Your task to perform on an android device: Search for usb-b on costco, select the first entry, and add it to the cart. Image 0: 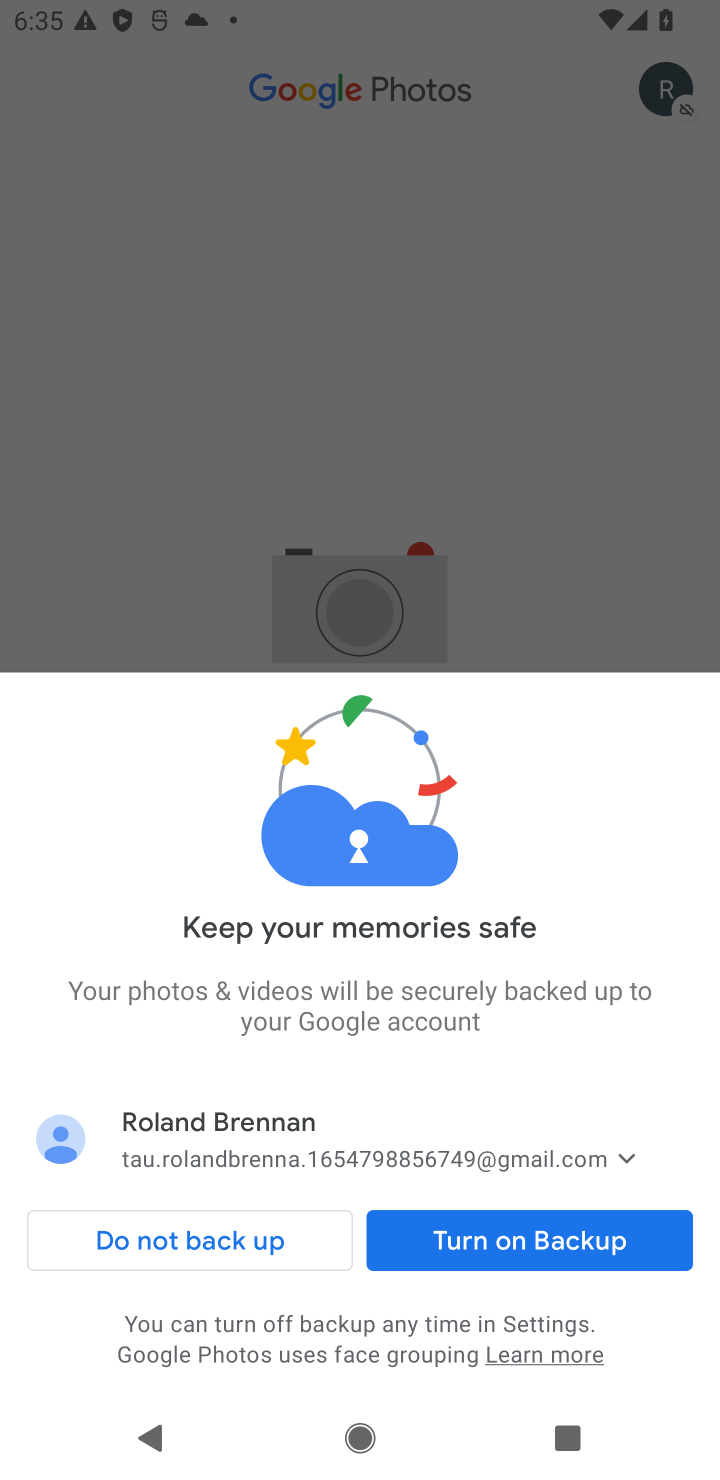
Step 0: press home button
Your task to perform on an android device: Search for usb-b on costco, select the first entry, and add it to the cart. Image 1: 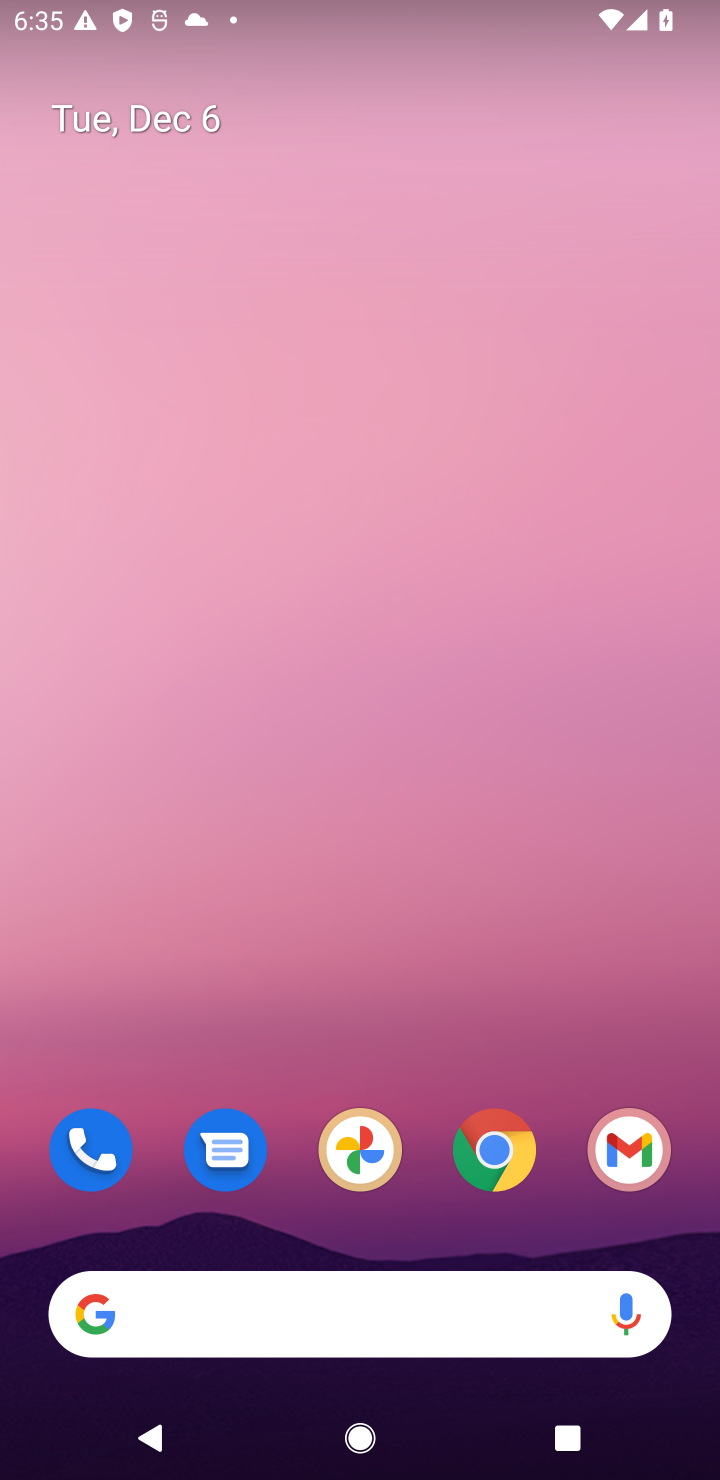
Step 1: click (504, 1164)
Your task to perform on an android device: Search for usb-b on costco, select the first entry, and add it to the cart. Image 2: 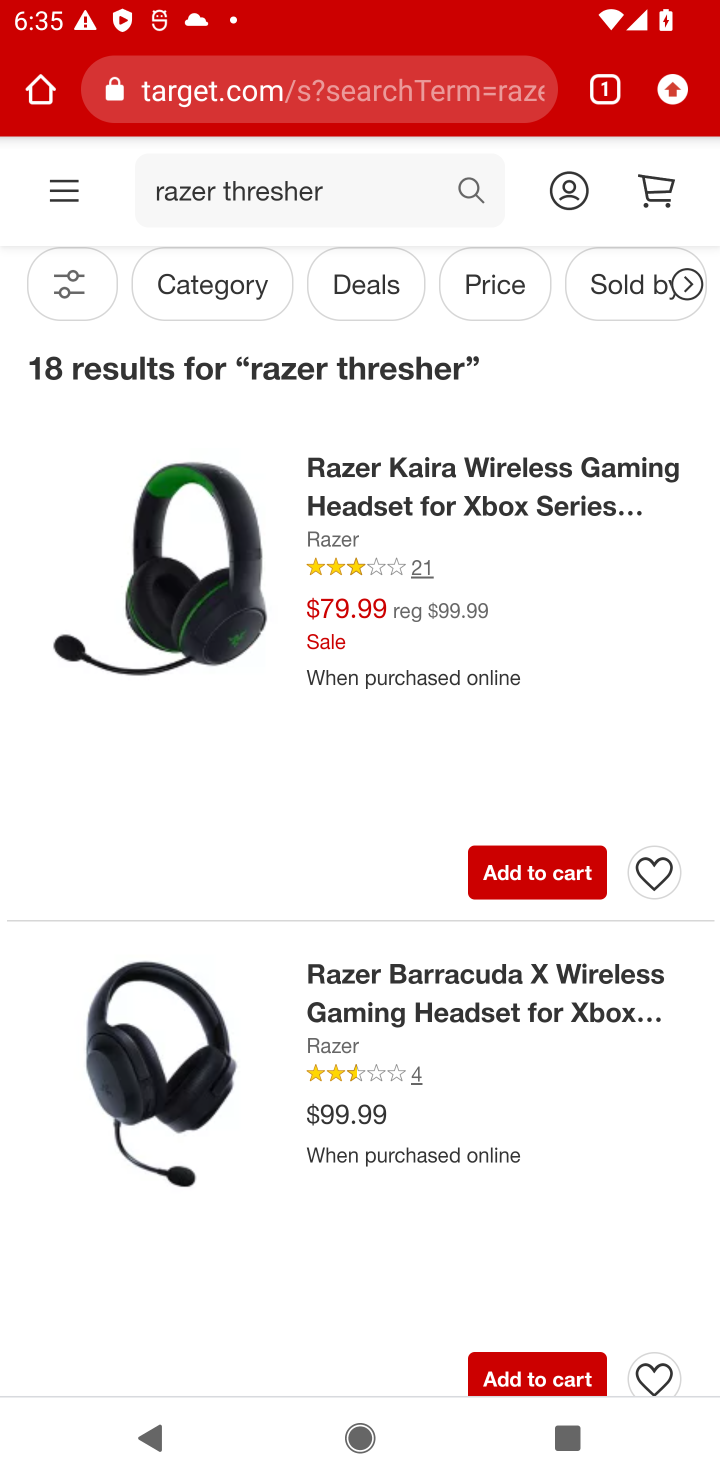
Step 2: click (281, 101)
Your task to perform on an android device: Search for usb-b on costco, select the first entry, and add it to the cart. Image 3: 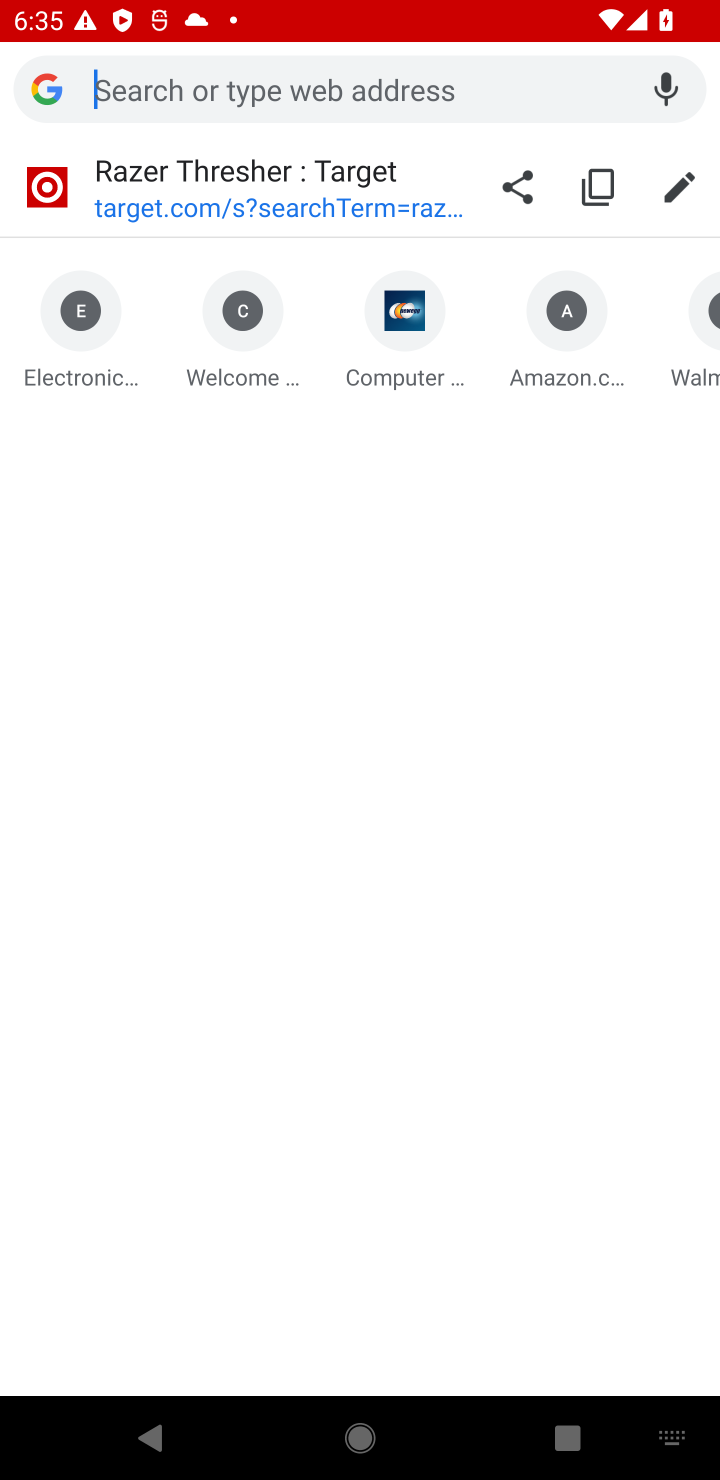
Step 3: type "costco.com"
Your task to perform on an android device: Search for usb-b on costco, select the first entry, and add it to the cart. Image 4: 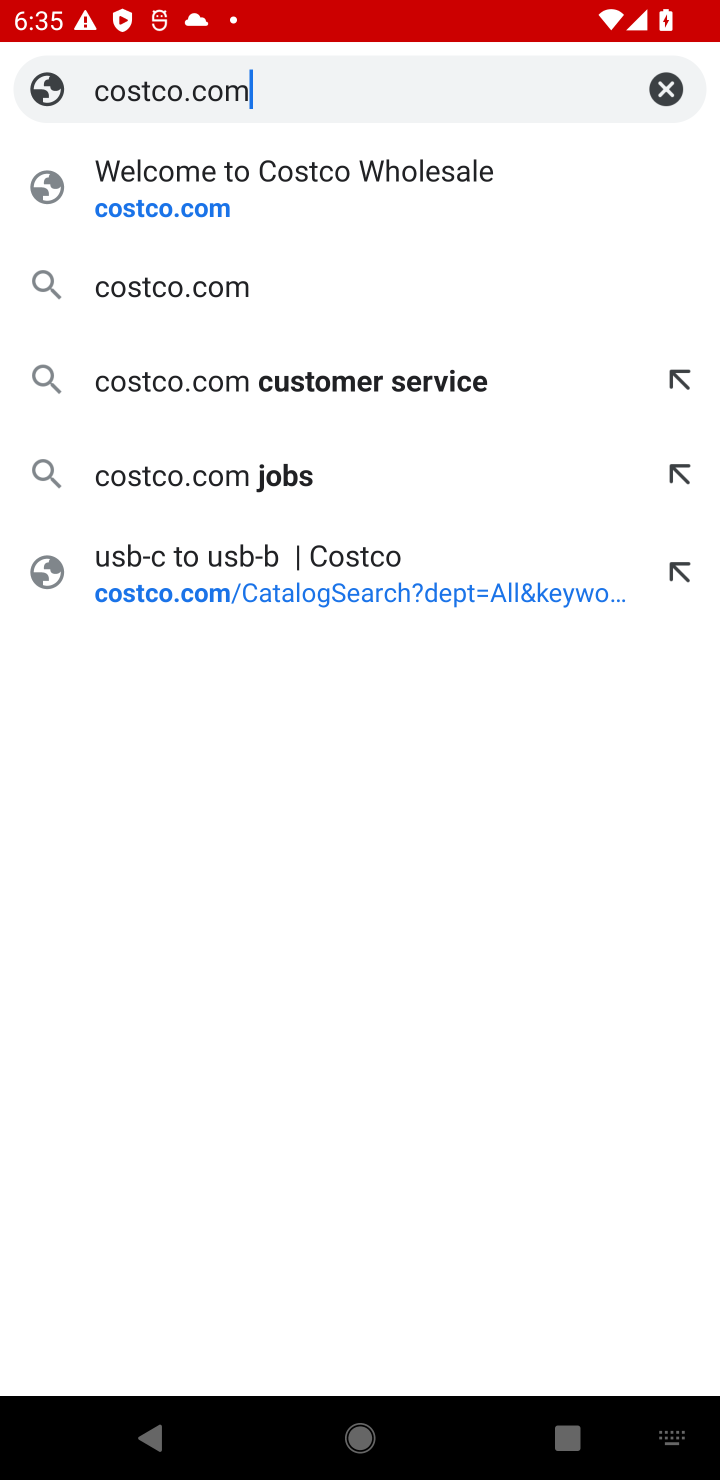
Step 4: click (162, 199)
Your task to perform on an android device: Search for usb-b on costco, select the first entry, and add it to the cart. Image 5: 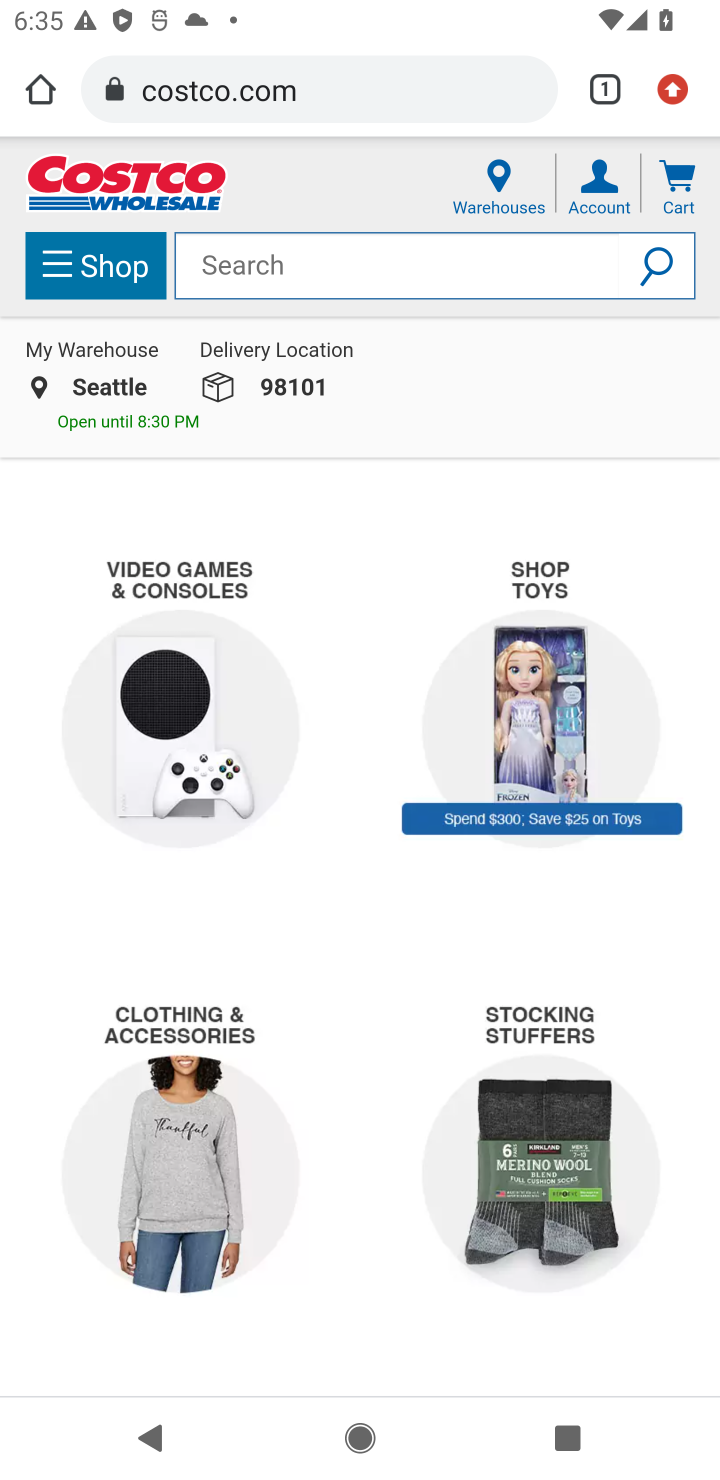
Step 5: click (262, 284)
Your task to perform on an android device: Search for usb-b on costco, select the first entry, and add it to the cart. Image 6: 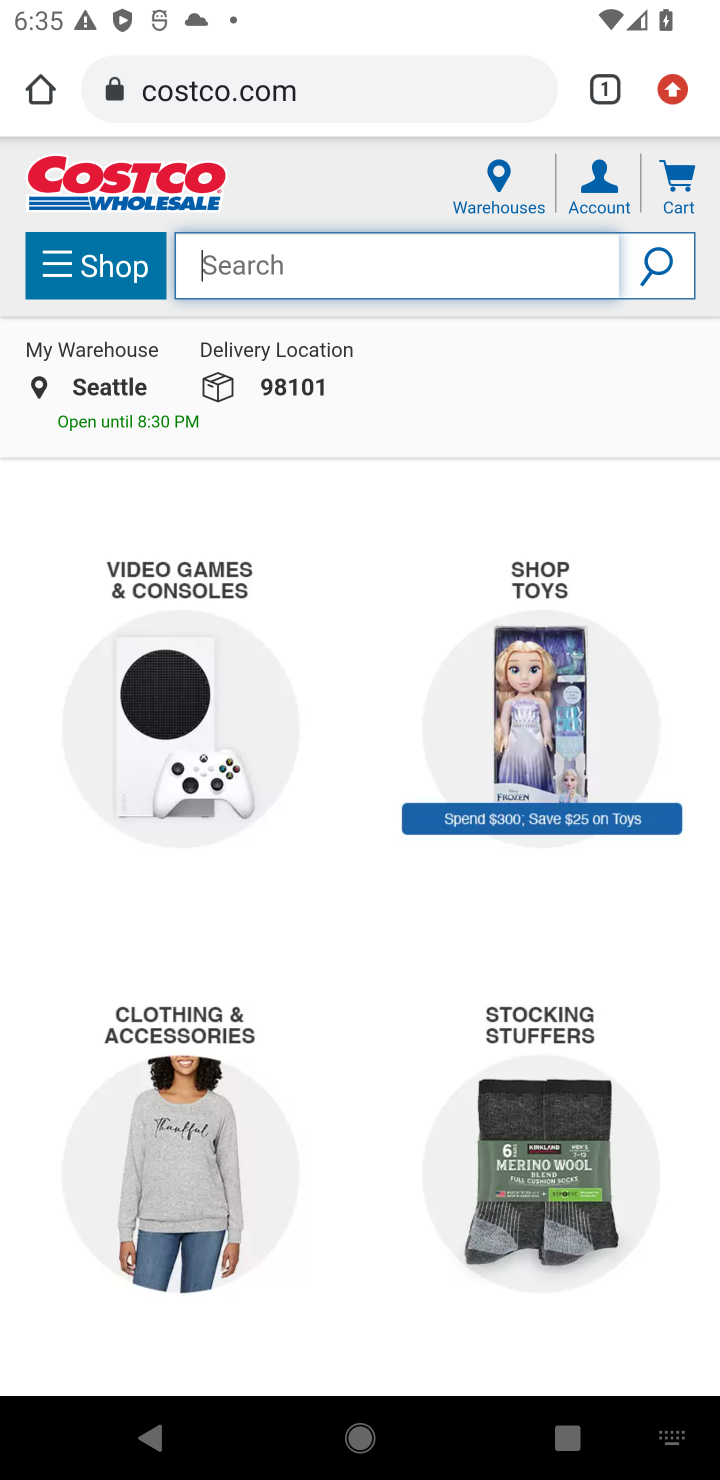
Step 6: type "usb-b "
Your task to perform on an android device: Search for usb-b on costco, select the first entry, and add it to the cart. Image 7: 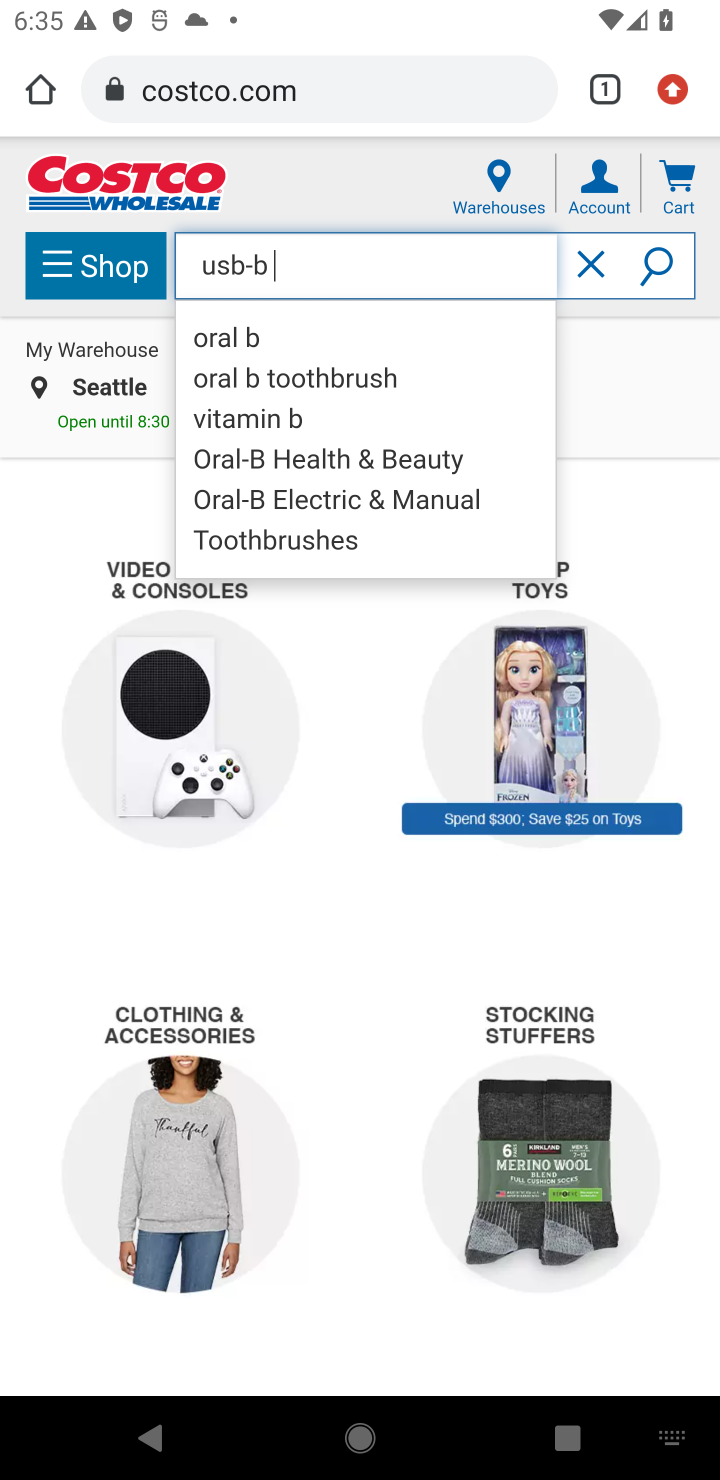
Step 7: click (648, 276)
Your task to perform on an android device: Search for usb-b on costco, select the first entry, and add it to the cart. Image 8: 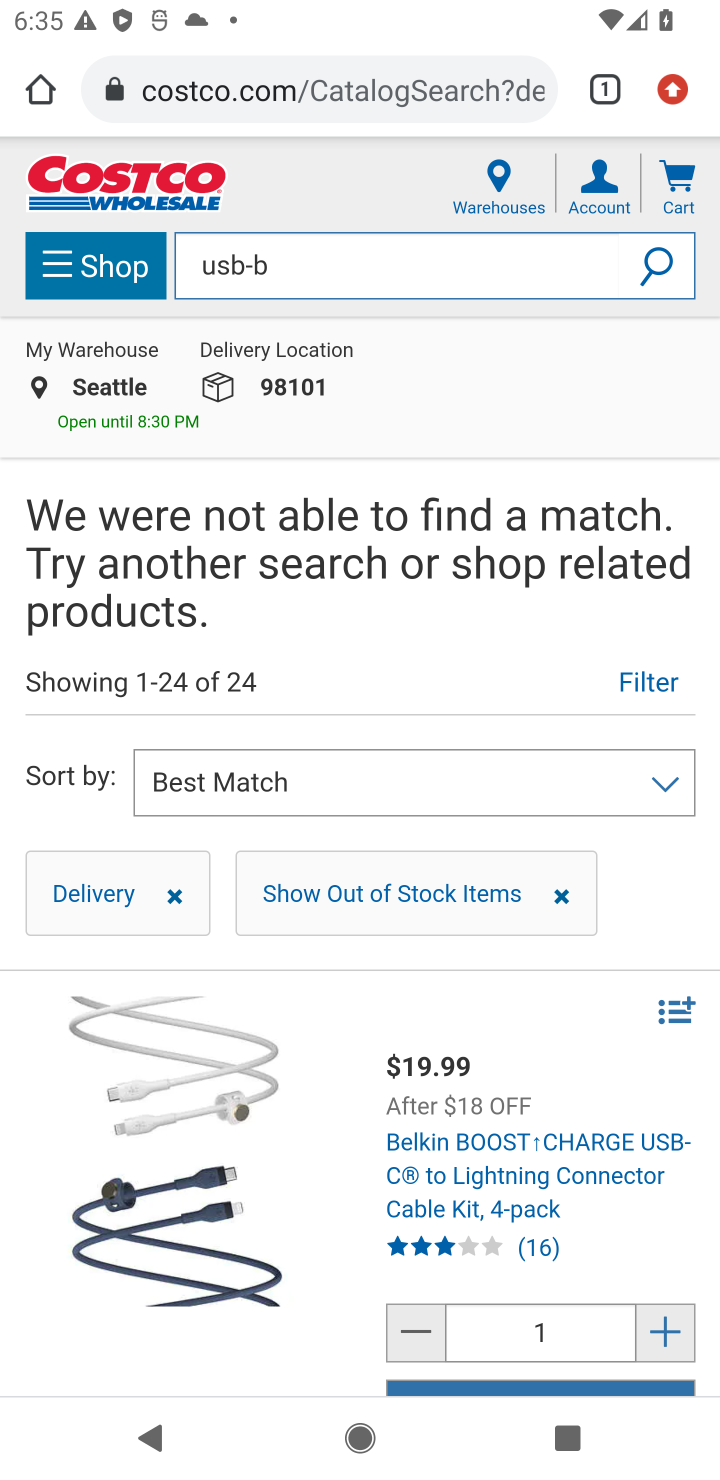
Step 8: task complete